Your task to perform on an android device: set default search engine in the chrome app Image 0: 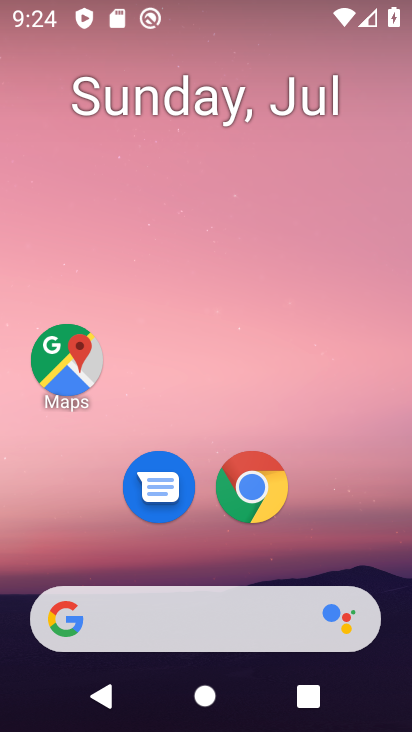
Step 0: drag from (133, 563) to (213, 5)
Your task to perform on an android device: set default search engine in the chrome app Image 1: 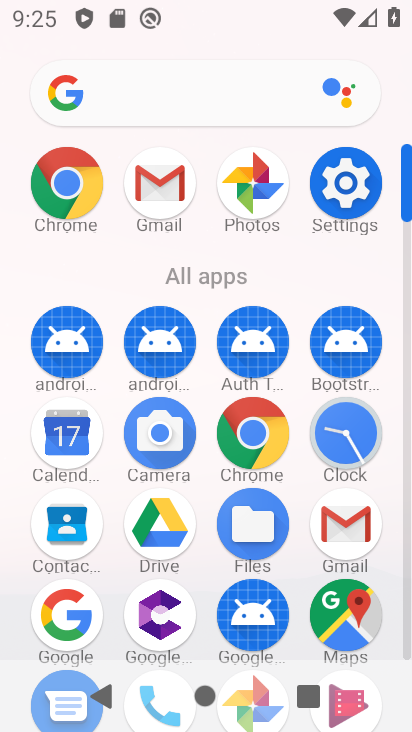
Step 1: click (56, 173)
Your task to perform on an android device: set default search engine in the chrome app Image 2: 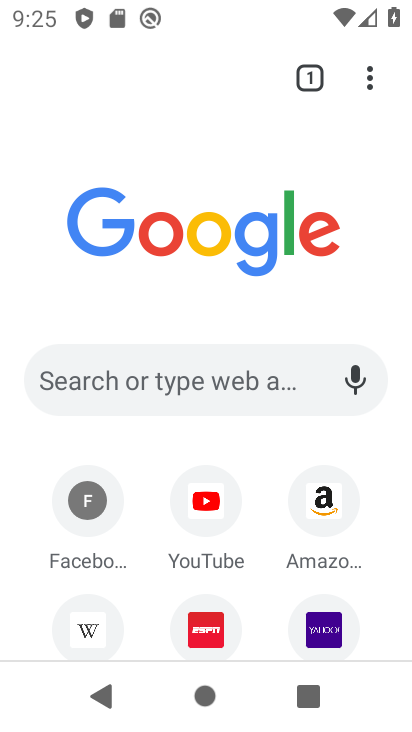
Step 2: drag from (374, 73) to (118, 542)
Your task to perform on an android device: set default search engine in the chrome app Image 3: 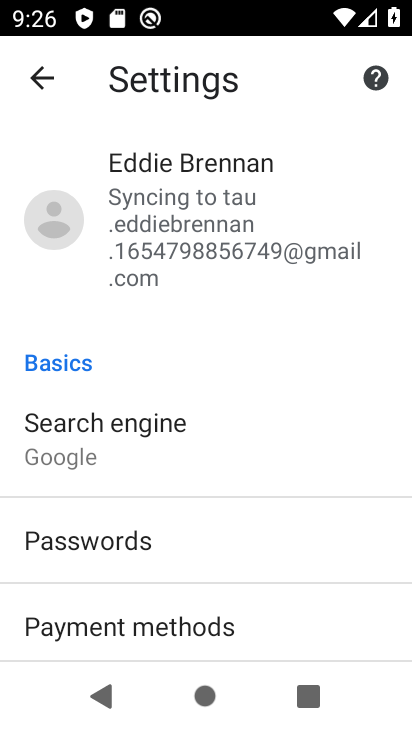
Step 3: click (103, 455)
Your task to perform on an android device: set default search engine in the chrome app Image 4: 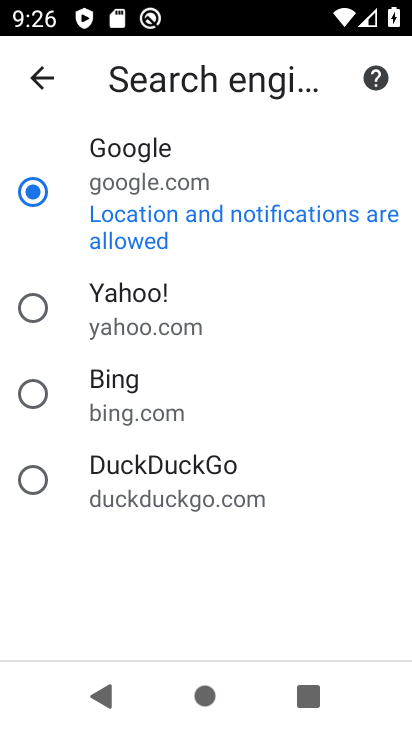
Step 4: click (38, 291)
Your task to perform on an android device: set default search engine in the chrome app Image 5: 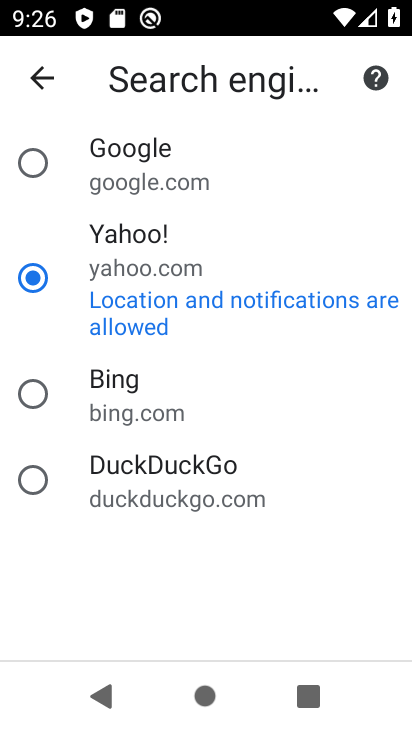
Step 5: task complete